Your task to perform on an android device: change timer sound Image 0: 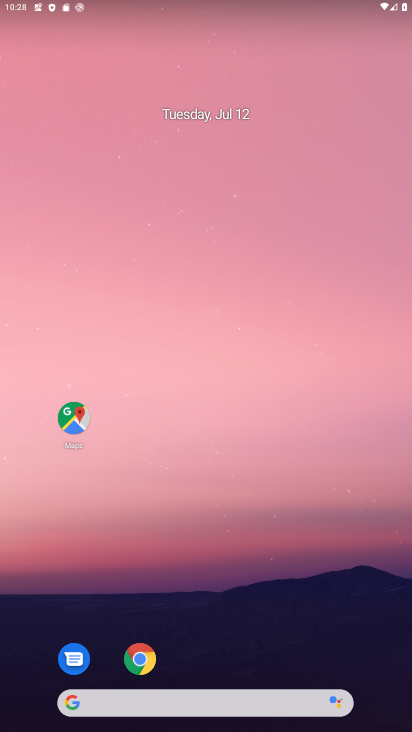
Step 0: drag from (375, 503) to (343, 163)
Your task to perform on an android device: change timer sound Image 1: 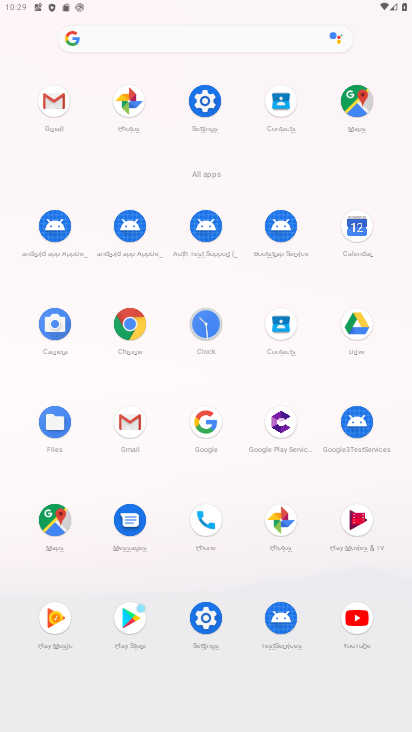
Step 1: click (216, 305)
Your task to perform on an android device: change timer sound Image 2: 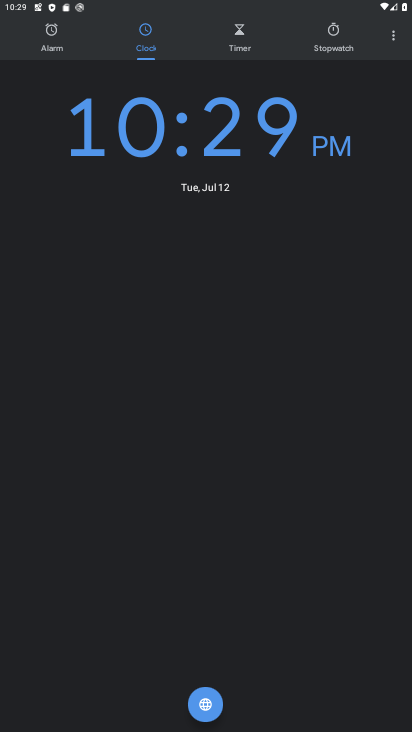
Step 2: click (392, 39)
Your task to perform on an android device: change timer sound Image 3: 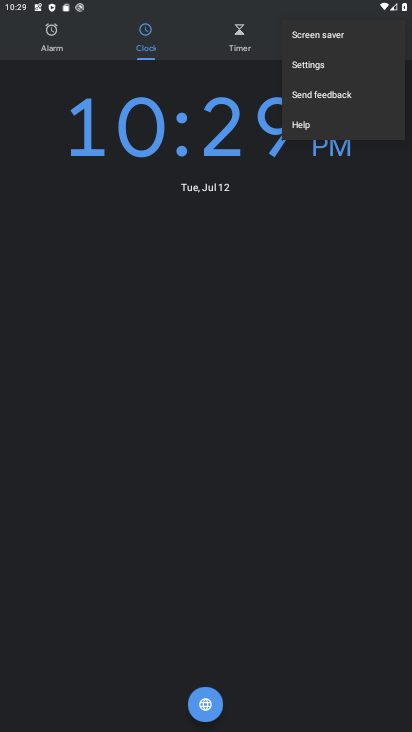
Step 3: click (314, 58)
Your task to perform on an android device: change timer sound Image 4: 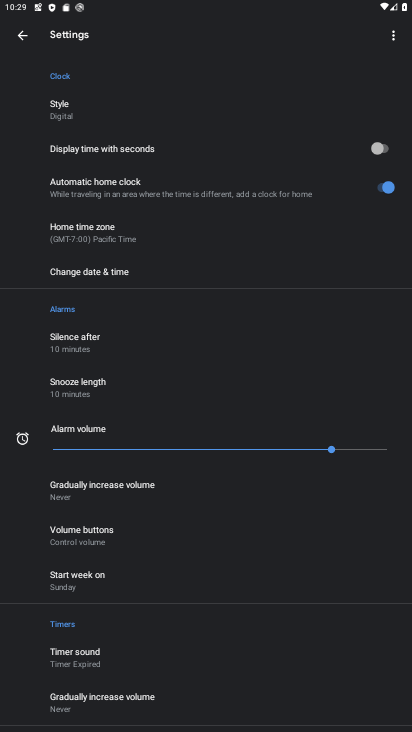
Step 4: click (71, 658)
Your task to perform on an android device: change timer sound Image 5: 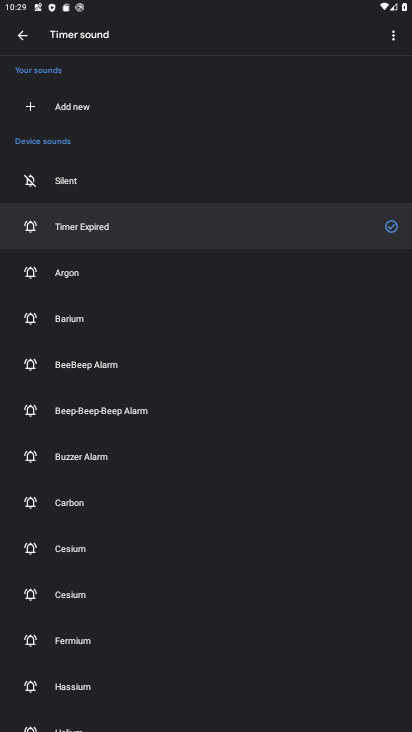
Step 5: click (70, 323)
Your task to perform on an android device: change timer sound Image 6: 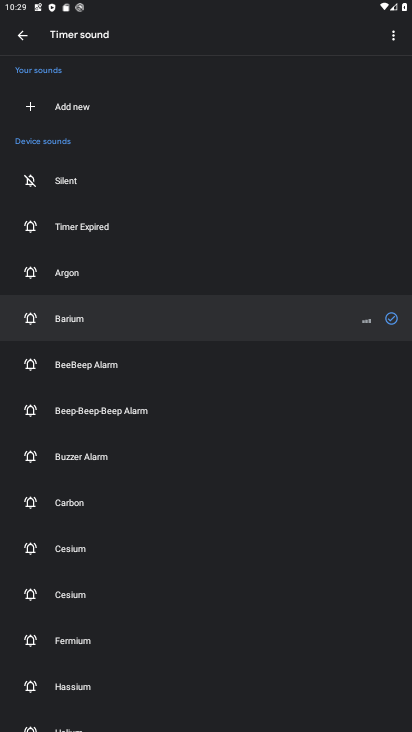
Step 6: task complete